Your task to perform on an android device: Open Yahoo.com Image 0: 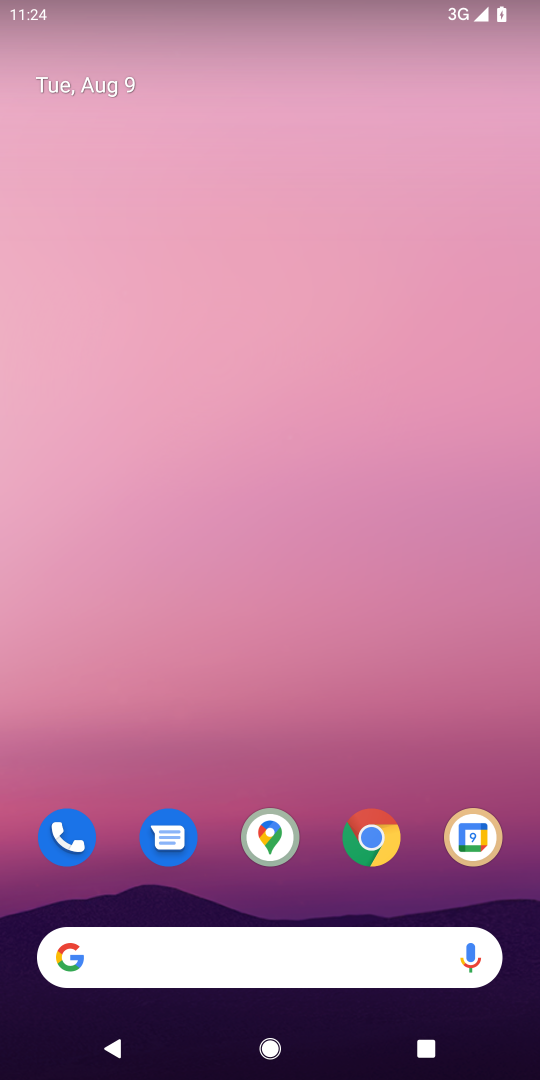
Step 0: click (377, 831)
Your task to perform on an android device: Open Yahoo.com Image 1: 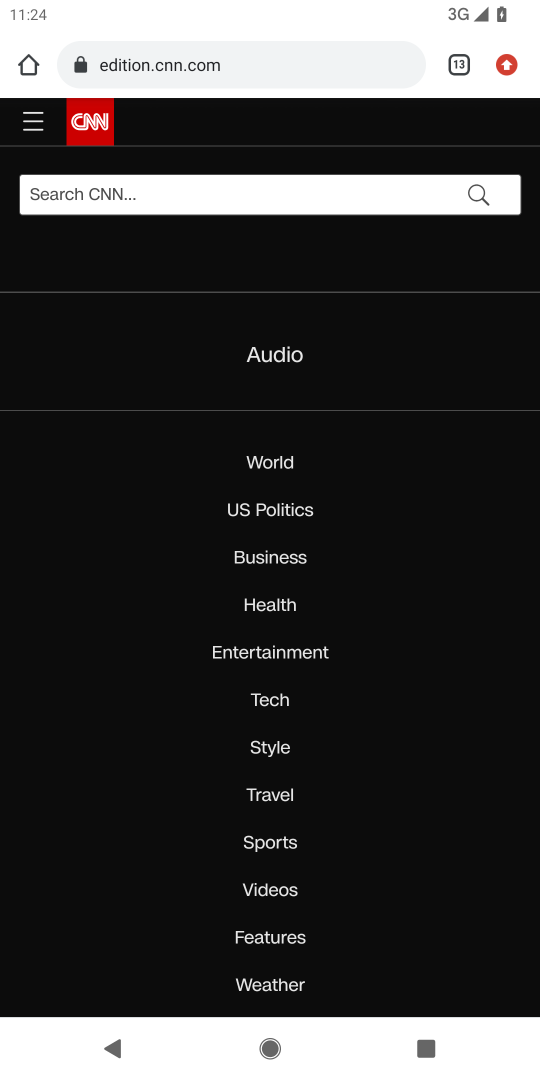
Step 1: click (501, 68)
Your task to perform on an android device: Open Yahoo.com Image 2: 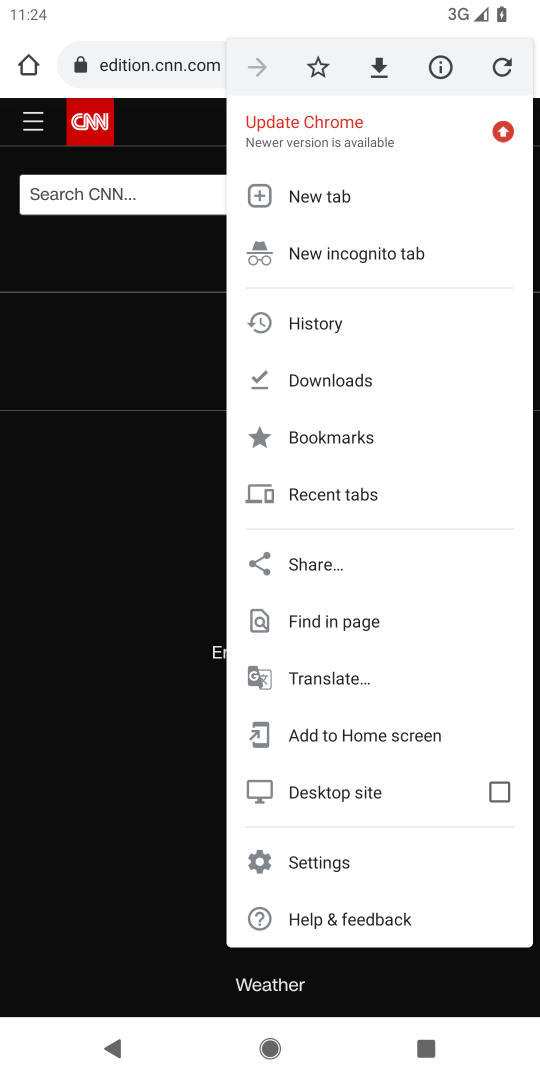
Step 2: click (310, 193)
Your task to perform on an android device: Open Yahoo.com Image 3: 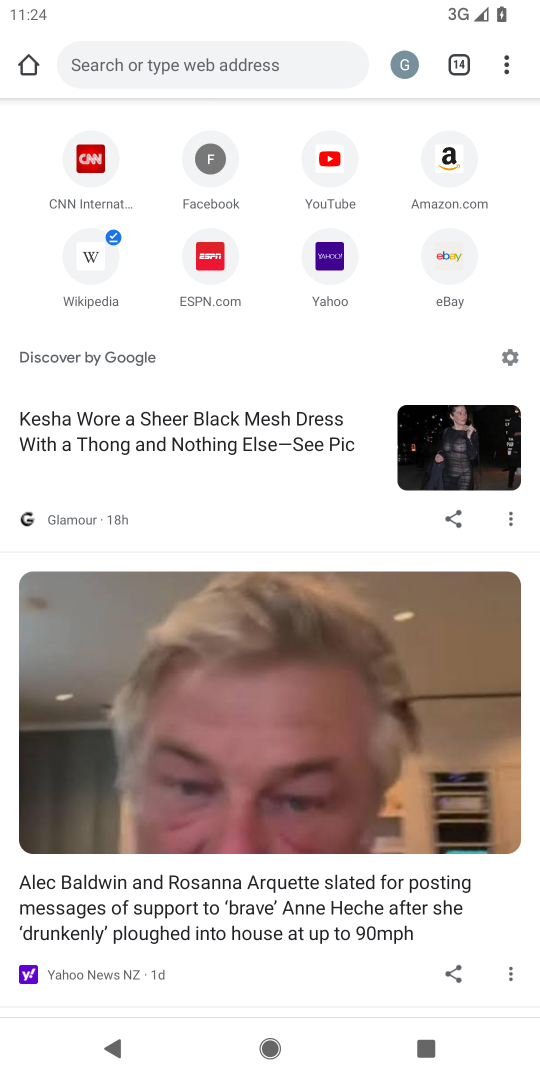
Step 3: click (327, 257)
Your task to perform on an android device: Open Yahoo.com Image 4: 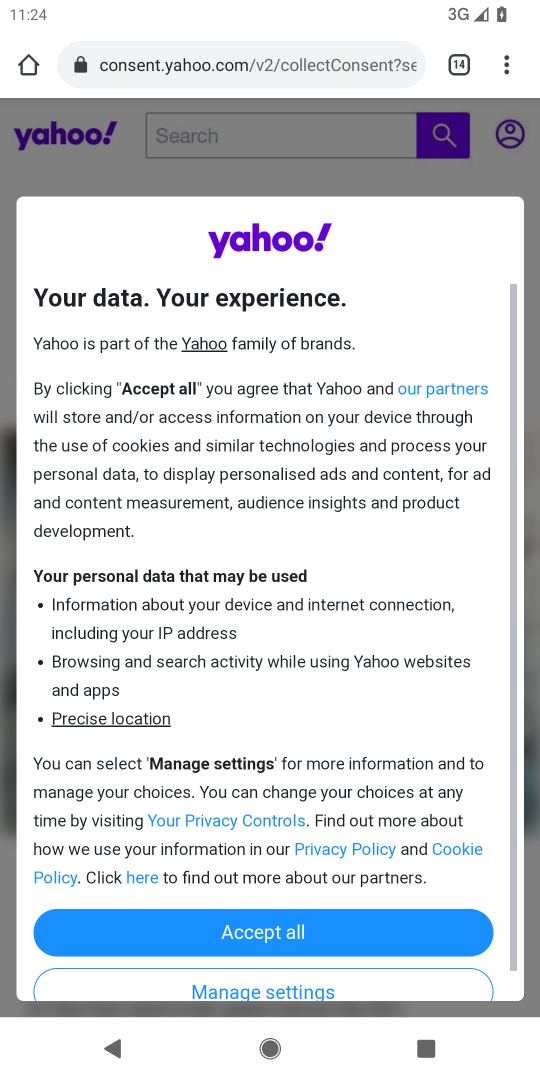
Step 4: click (278, 923)
Your task to perform on an android device: Open Yahoo.com Image 5: 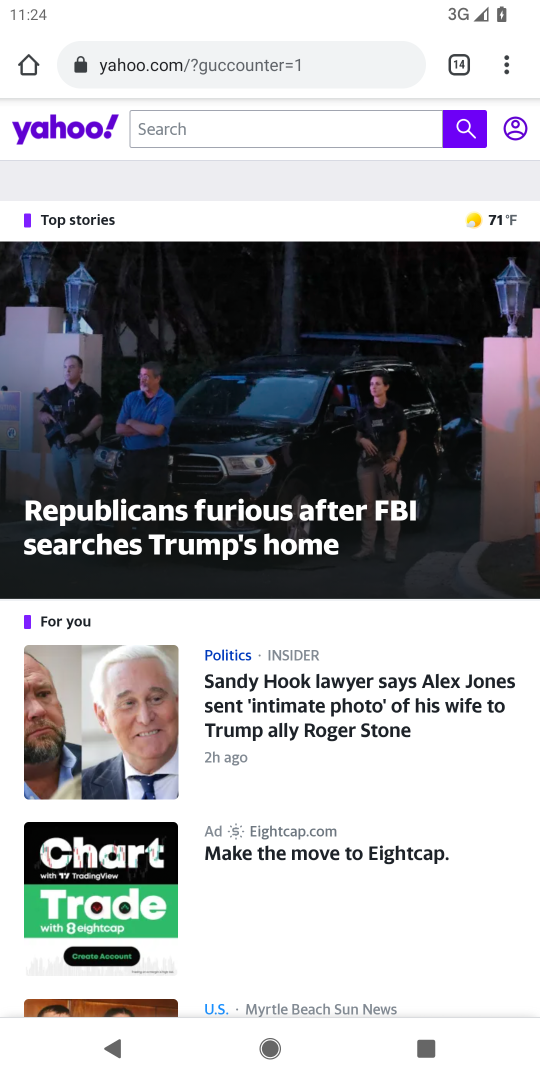
Step 5: task complete